Your task to perform on an android device: turn on showing notifications on the lock screen Image 0: 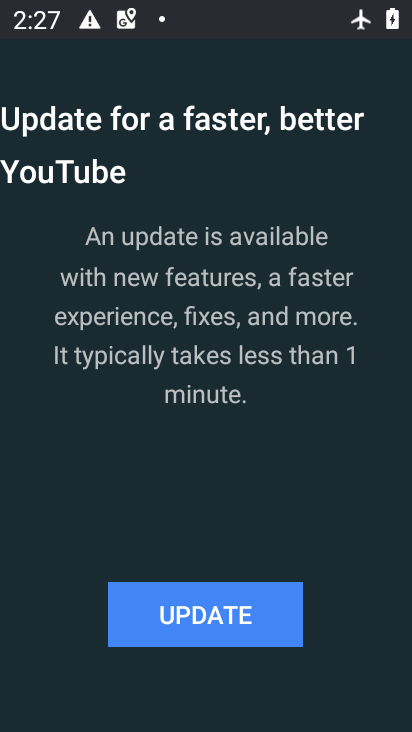
Step 0: press home button
Your task to perform on an android device: turn on showing notifications on the lock screen Image 1: 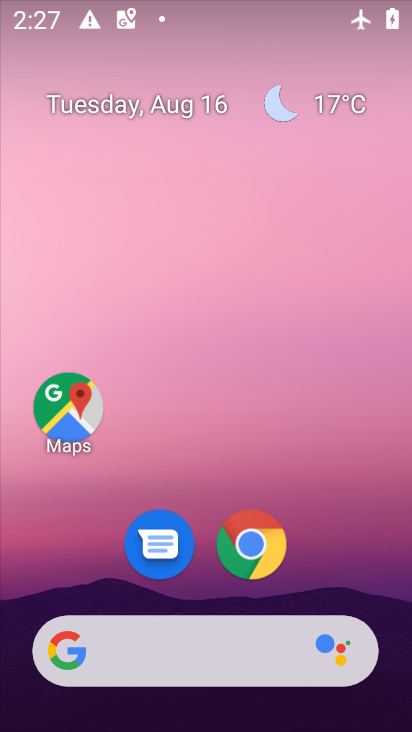
Step 1: drag from (210, 653) to (262, 139)
Your task to perform on an android device: turn on showing notifications on the lock screen Image 2: 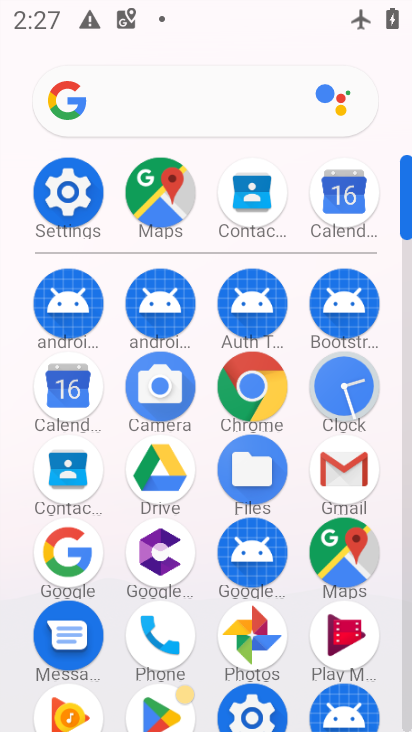
Step 2: click (66, 193)
Your task to perform on an android device: turn on showing notifications on the lock screen Image 3: 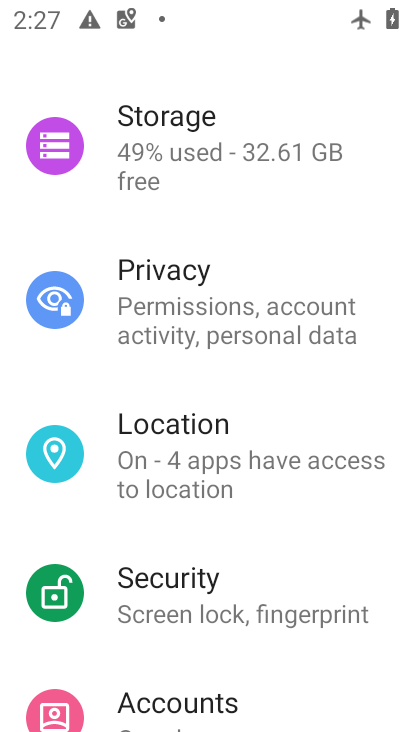
Step 3: drag from (195, 537) to (217, 447)
Your task to perform on an android device: turn on showing notifications on the lock screen Image 4: 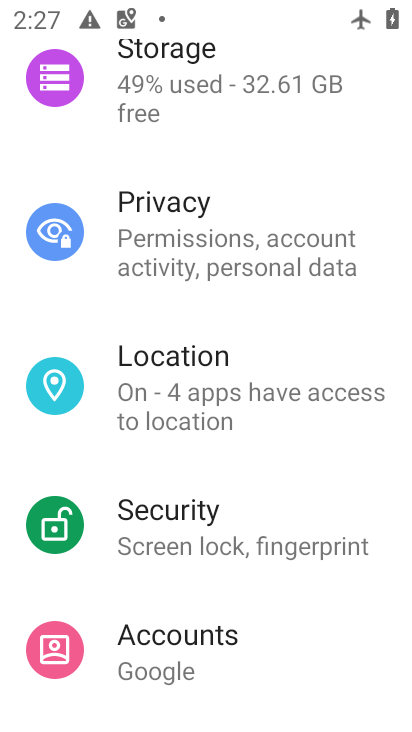
Step 4: drag from (206, 286) to (210, 439)
Your task to perform on an android device: turn on showing notifications on the lock screen Image 5: 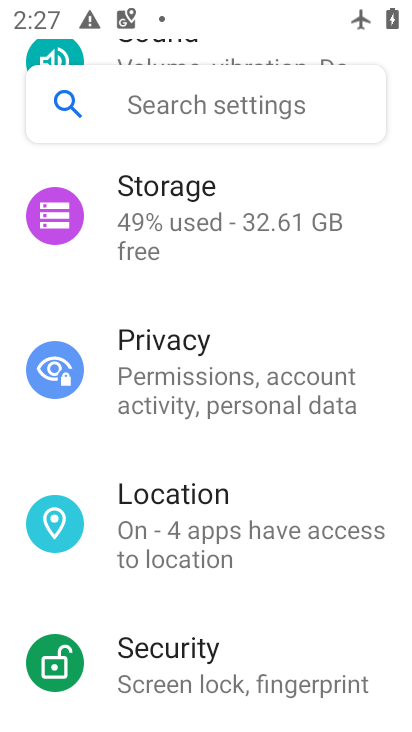
Step 5: drag from (175, 263) to (198, 425)
Your task to perform on an android device: turn on showing notifications on the lock screen Image 6: 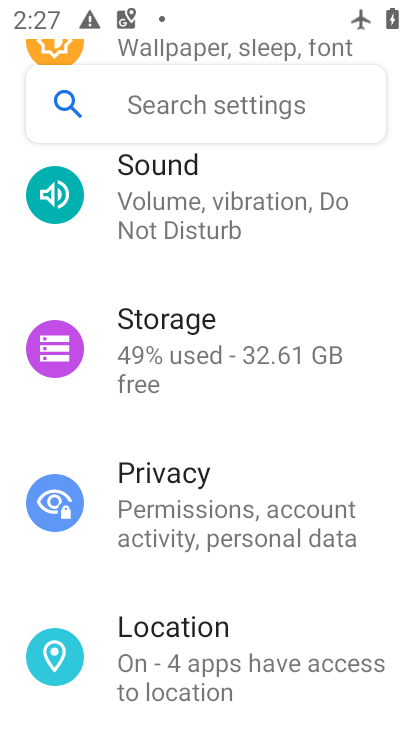
Step 6: drag from (174, 277) to (209, 435)
Your task to perform on an android device: turn on showing notifications on the lock screen Image 7: 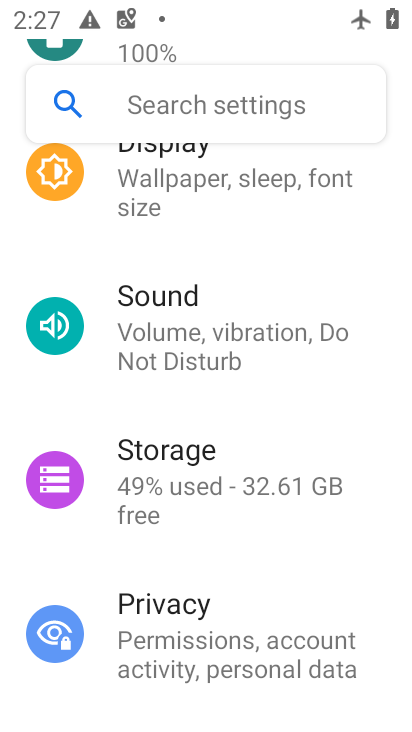
Step 7: drag from (182, 244) to (211, 398)
Your task to perform on an android device: turn on showing notifications on the lock screen Image 8: 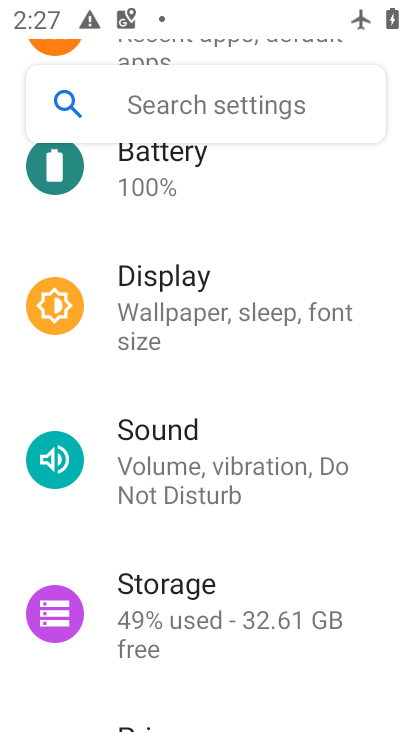
Step 8: drag from (155, 217) to (191, 409)
Your task to perform on an android device: turn on showing notifications on the lock screen Image 9: 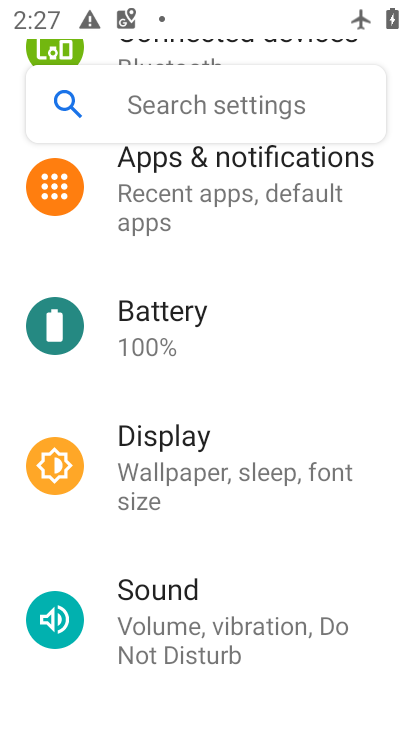
Step 9: drag from (165, 251) to (198, 448)
Your task to perform on an android device: turn on showing notifications on the lock screen Image 10: 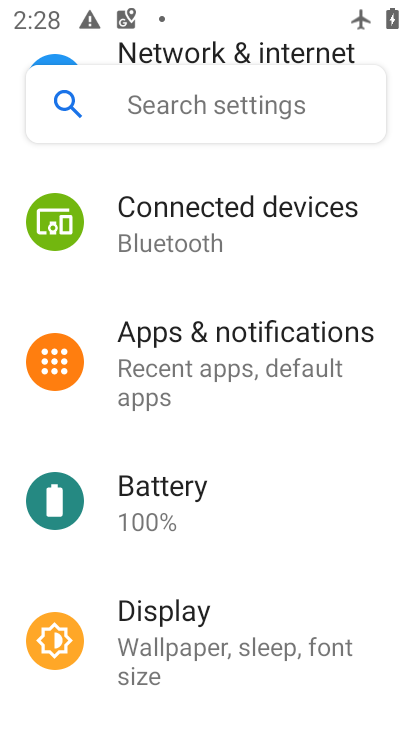
Step 10: click (208, 339)
Your task to perform on an android device: turn on showing notifications on the lock screen Image 11: 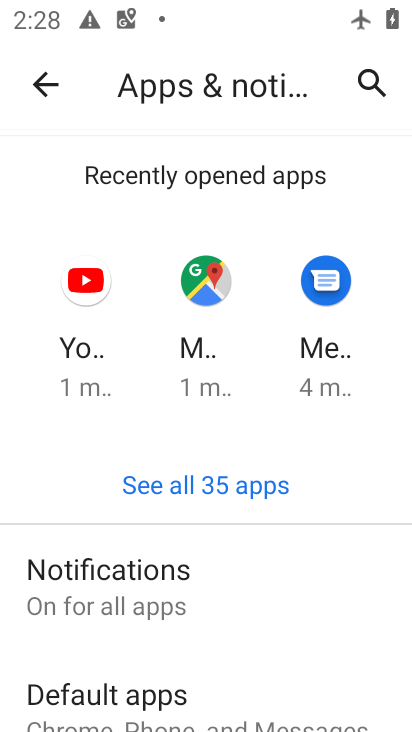
Step 11: click (108, 574)
Your task to perform on an android device: turn on showing notifications on the lock screen Image 12: 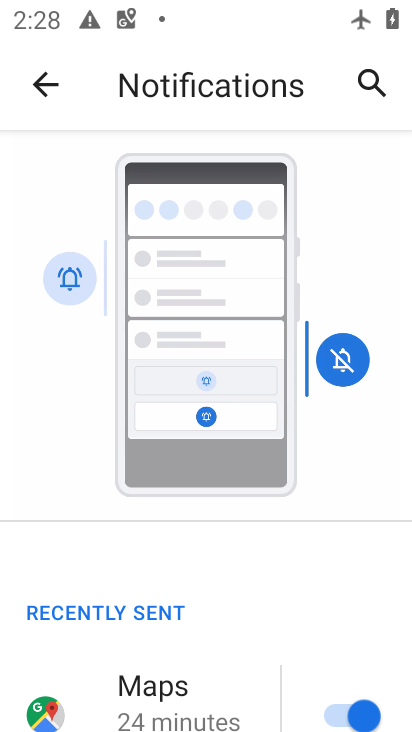
Step 12: drag from (227, 581) to (236, 380)
Your task to perform on an android device: turn on showing notifications on the lock screen Image 13: 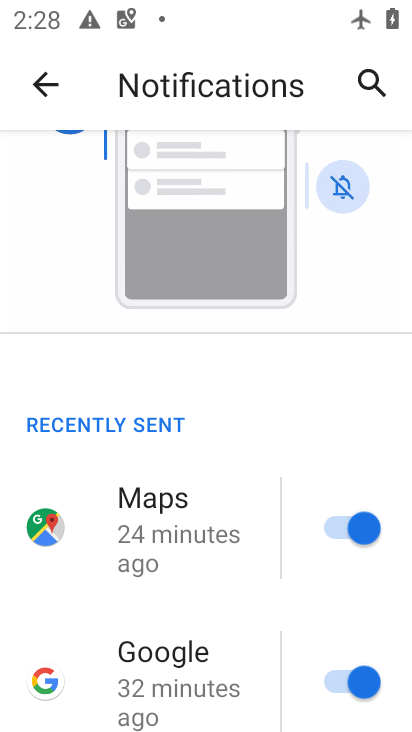
Step 13: drag from (202, 601) to (221, 346)
Your task to perform on an android device: turn on showing notifications on the lock screen Image 14: 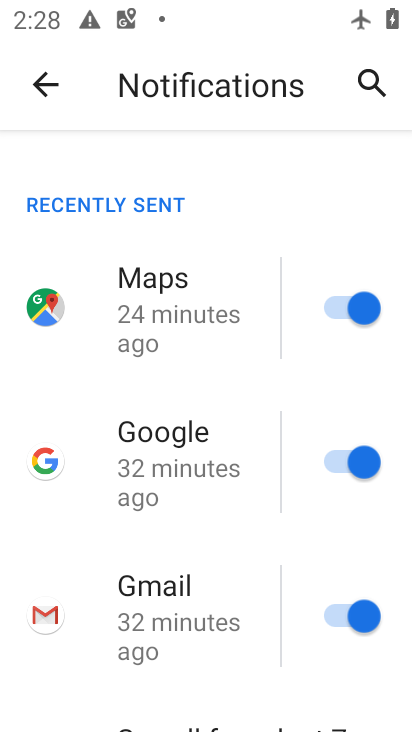
Step 14: drag from (191, 496) to (208, 344)
Your task to perform on an android device: turn on showing notifications on the lock screen Image 15: 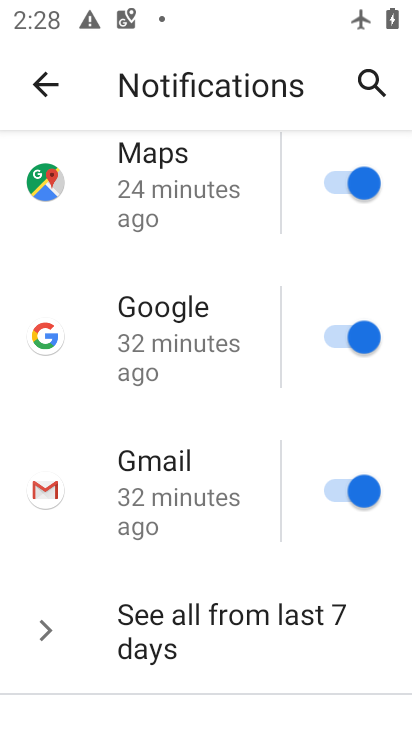
Step 15: drag from (188, 547) to (220, 369)
Your task to perform on an android device: turn on showing notifications on the lock screen Image 16: 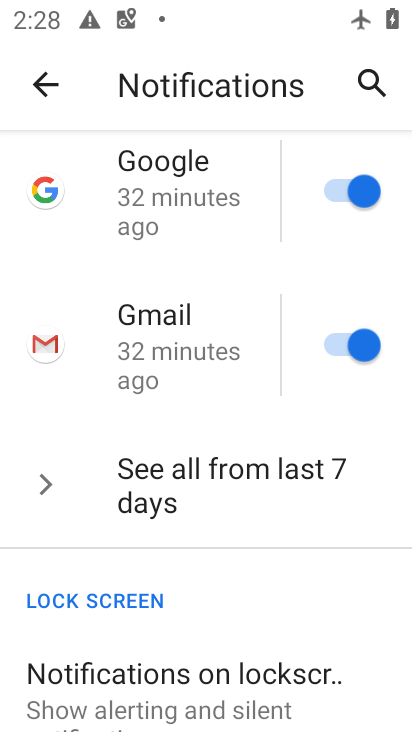
Step 16: drag from (204, 612) to (255, 480)
Your task to perform on an android device: turn on showing notifications on the lock screen Image 17: 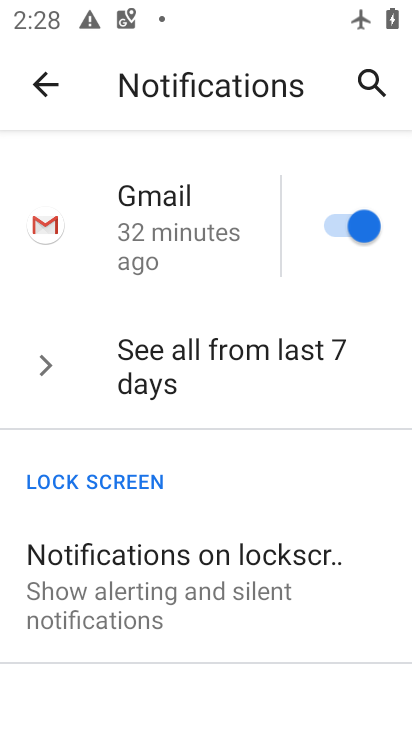
Step 17: click (235, 556)
Your task to perform on an android device: turn on showing notifications on the lock screen Image 18: 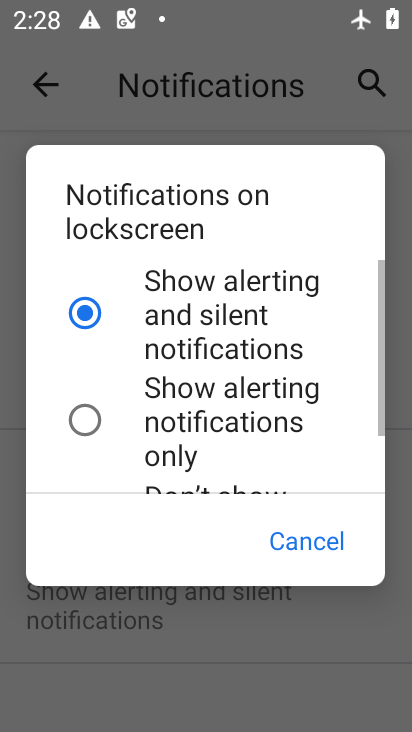
Step 18: click (81, 314)
Your task to perform on an android device: turn on showing notifications on the lock screen Image 19: 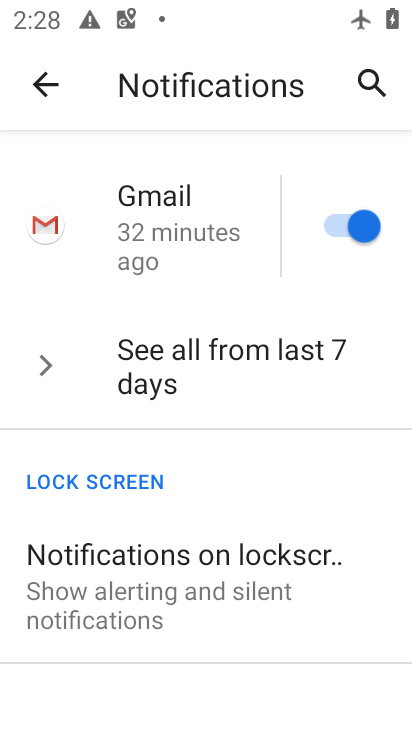
Step 19: task complete